Your task to perform on an android device: change the clock display to digital Image 0: 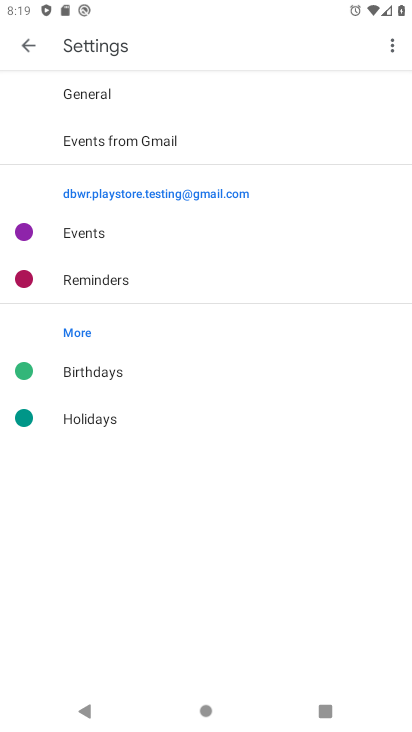
Step 0: press home button
Your task to perform on an android device: change the clock display to digital Image 1: 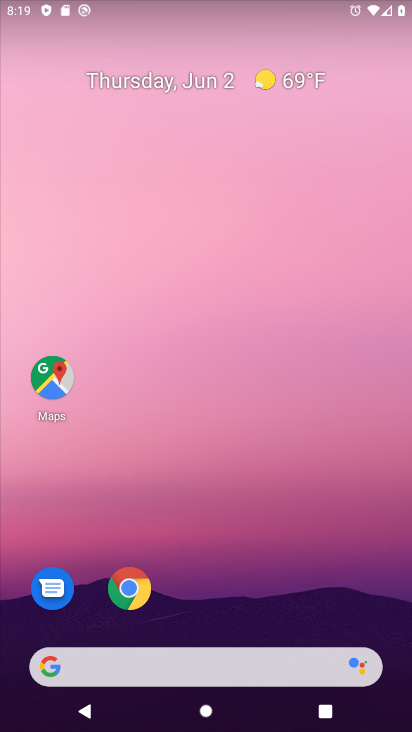
Step 1: drag from (247, 727) to (240, 28)
Your task to perform on an android device: change the clock display to digital Image 2: 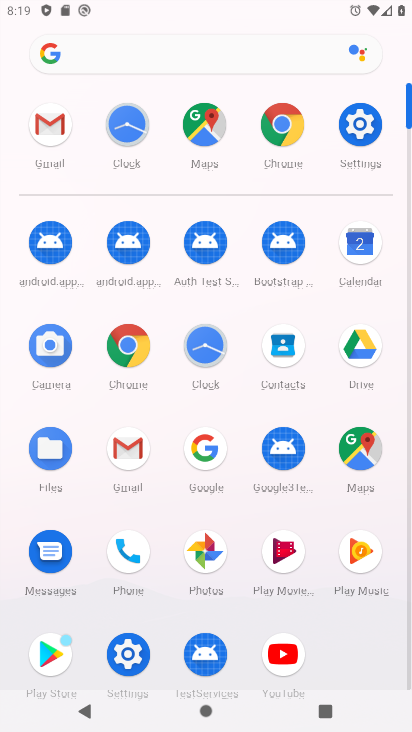
Step 2: click (199, 355)
Your task to perform on an android device: change the clock display to digital Image 3: 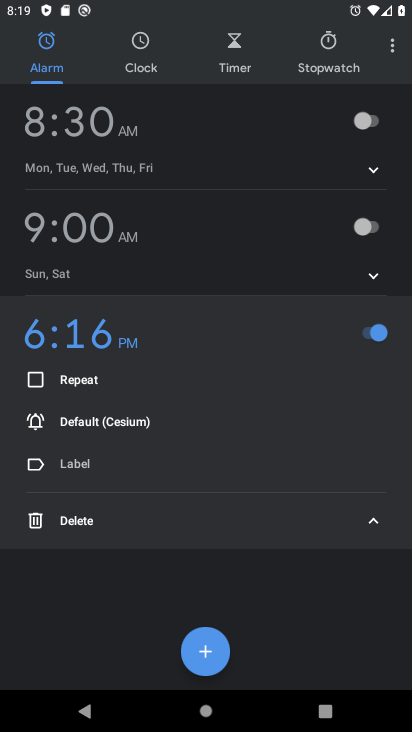
Step 3: click (394, 51)
Your task to perform on an android device: change the clock display to digital Image 4: 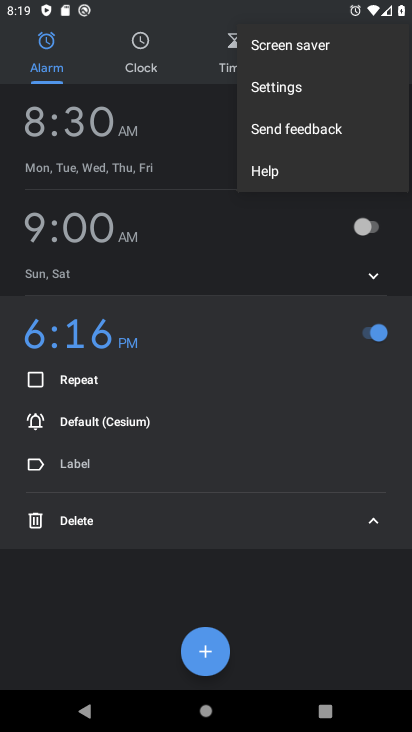
Step 4: click (273, 84)
Your task to perform on an android device: change the clock display to digital Image 5: 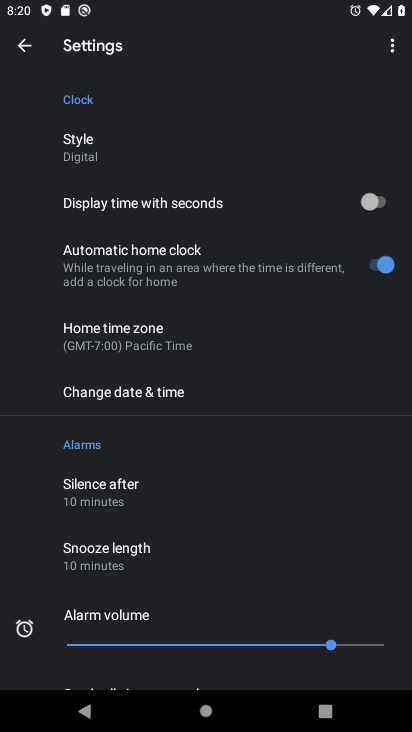
Step 5: task complete